Your task to perform on an android device: turn off priority inbox in the gmail app Image 0: 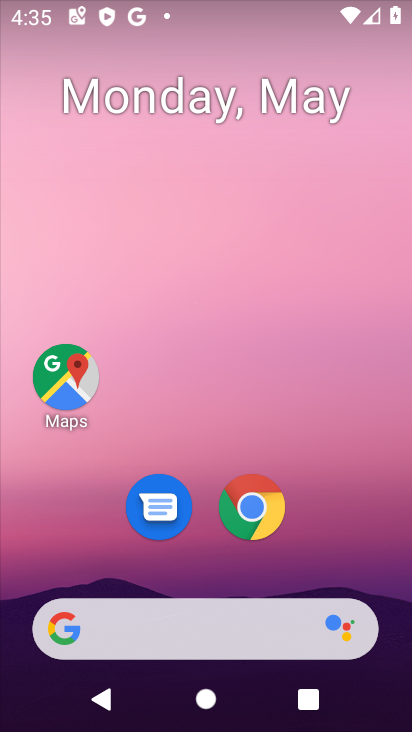
Step 0: drag from (350, 492) to (363, 144)
Your task to perform on an android device: turn off priority inbox in the gmail app Image 1: 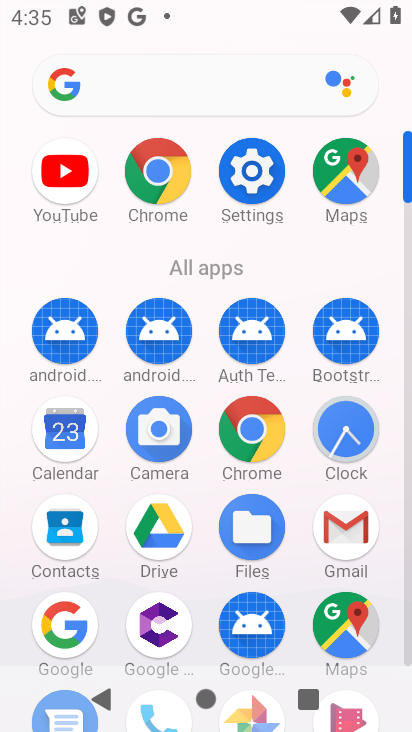
Step 1: click (351, 508)
Your task to perform on an android device: turn off priority inbox in the gmail app Image 2: 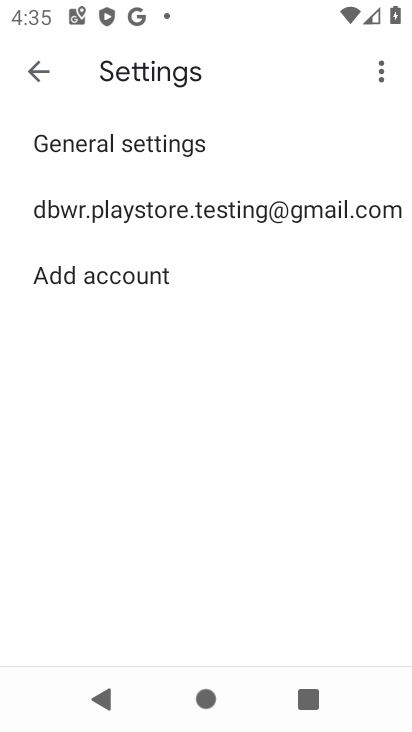
Step 2: click (61, 196)
Your task to perform on an android device: turn off priority inbox in the gmail app Image 3: 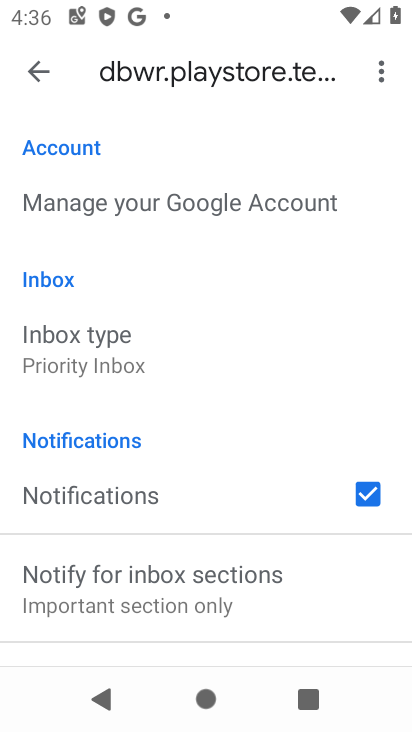
Step 3: click (56, 360)
Your task to perform on an android device: turn off priority inbox in the gmail app Image 4: 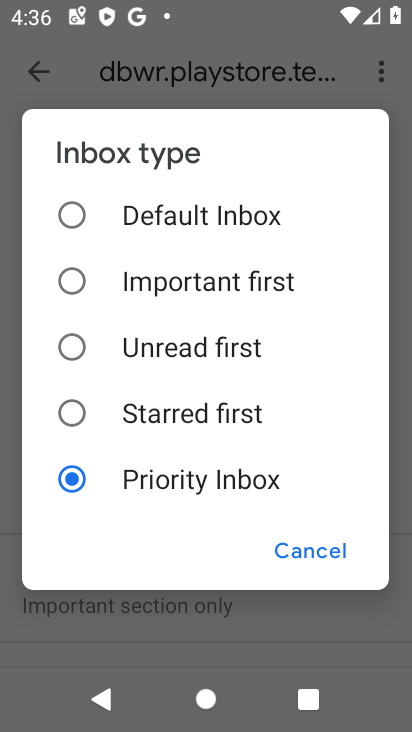
Step 4: click (108, 229)
Your task to perform on an android device: turn off priority inbox in the gmail app Image 5: 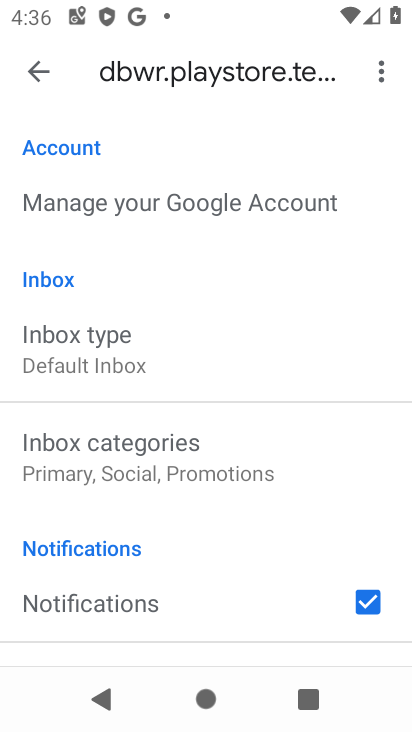
Step 5: task complete